Your task to perform on an android device: check storage Image 0: 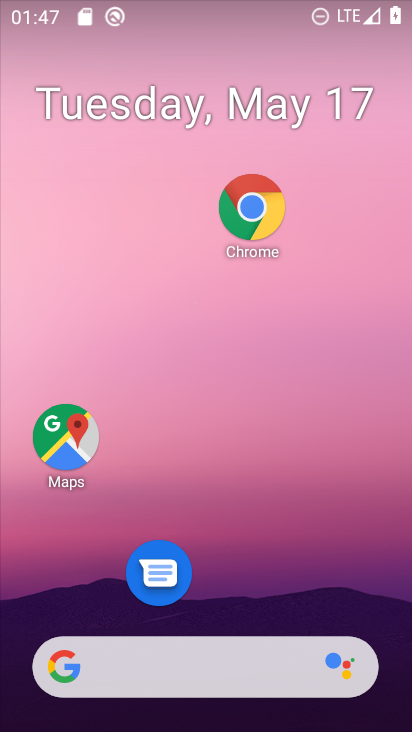
Step 0: drag from (328, 612) to (191, 17)
Your task to perform on an android device: check storage Image 1: 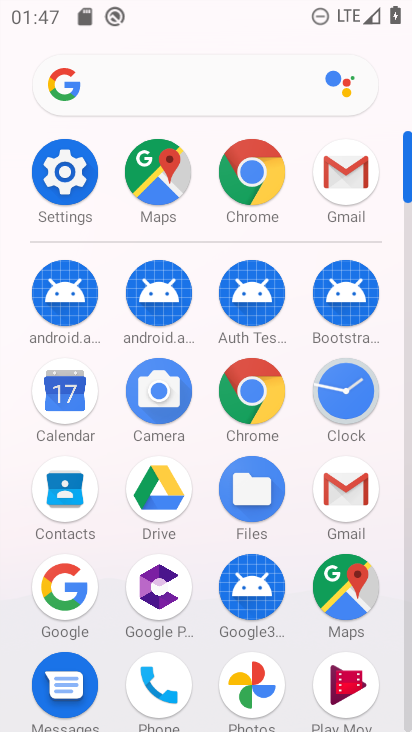
Step 1: click (63, 188)
Your task to perform on an android device: check storage Image 2: 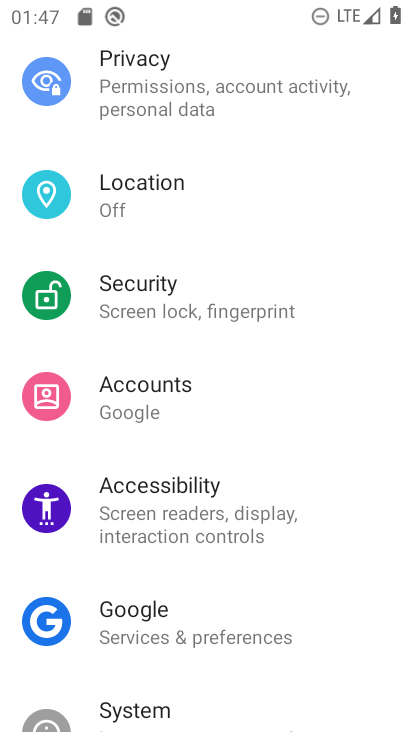
Step 2: drag from (204, 652) to (197, 158)
Your task to perform on an android device: check storage Image 3: 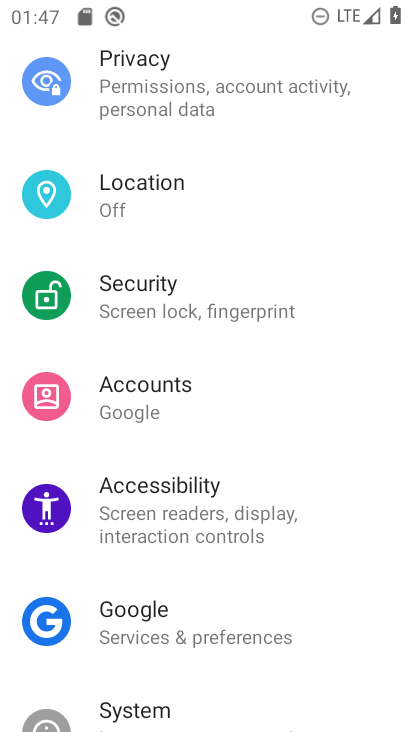
Step 3: drag from (188, 638) to (191, 190)
Your task to perform on an android device: check storage Image 4: 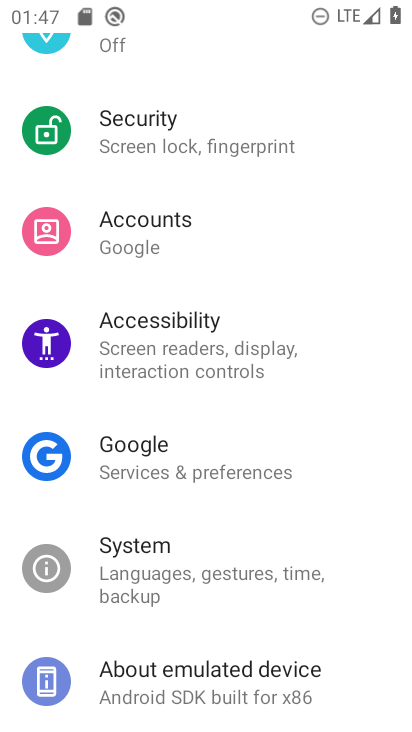
Step 4: drag from (186, 220) to (251, 727)
Your task to perform on an android device: check storage Image 5: 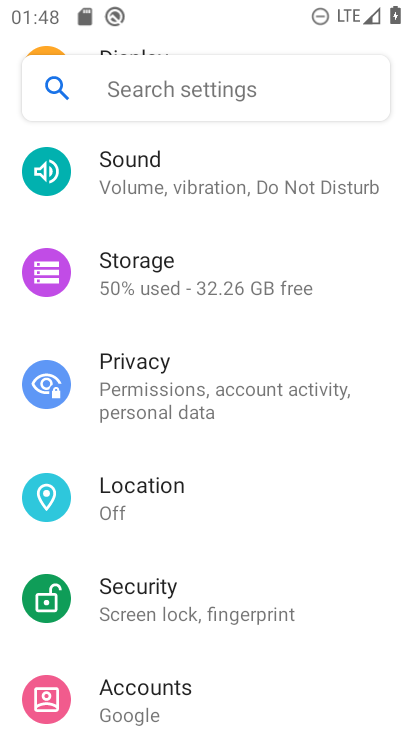
Step 5: click (165, 282)
Your task to perform on an android device: check storage Image 6: 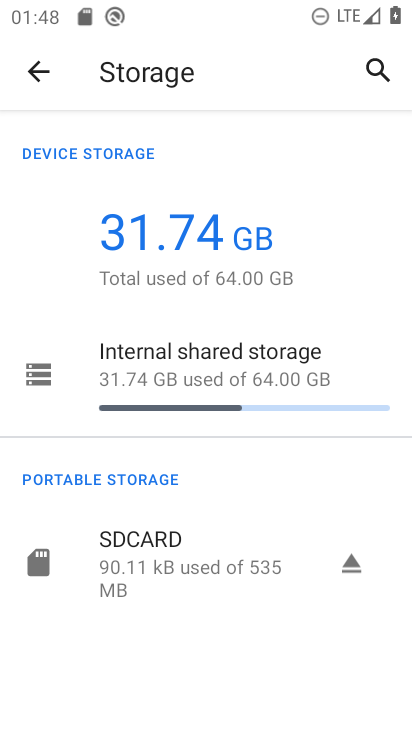
Step 6: task complete